Your task to perform on an android device: Open location settings Image 0: 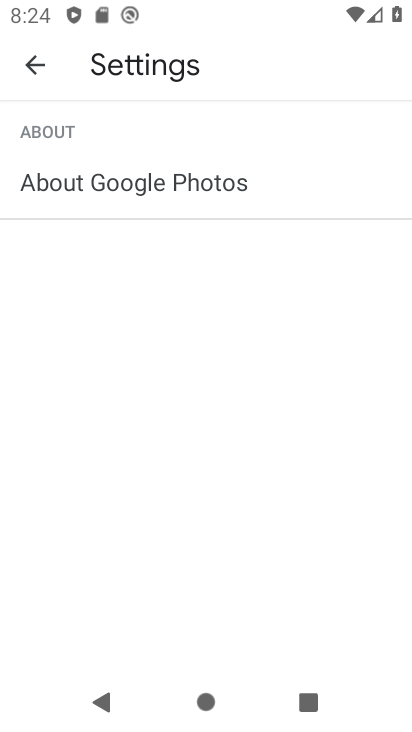
Step 0: press home button
Your task to perform on an android device: Open location settings Image 1: 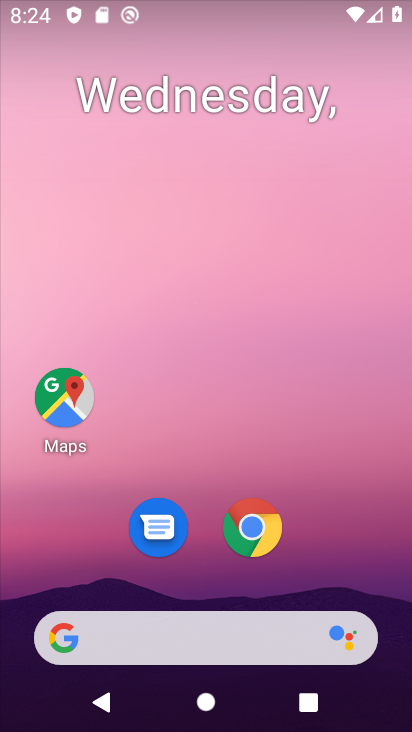
Step 1: drag from (371, 516) to (373, 20)
Your task to perform on an android device: Open location settings Image 2: 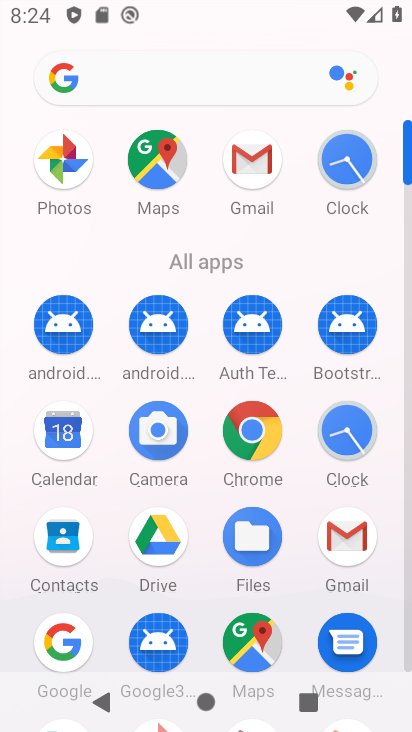
Step 2: drag from (286, 626) to (342, 156)
Your task to perform on an android device: Open location settings Image 3: 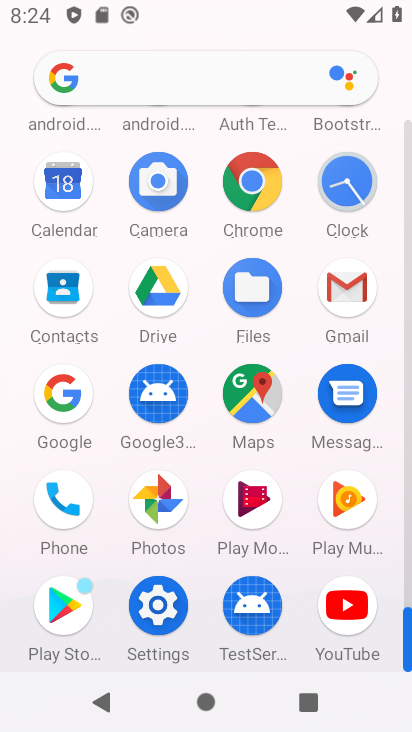
Step 3: drag from (219, 578) to (365, 189)
Your task to perform on an android device: Open location settings Image 4: 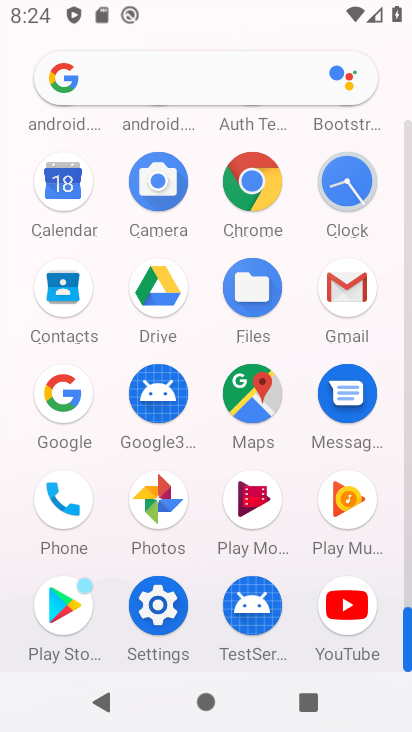
Step 4: drag from (347, 225) to (310, 622)
Your task to perform on an android device: Open location settings Image 5: 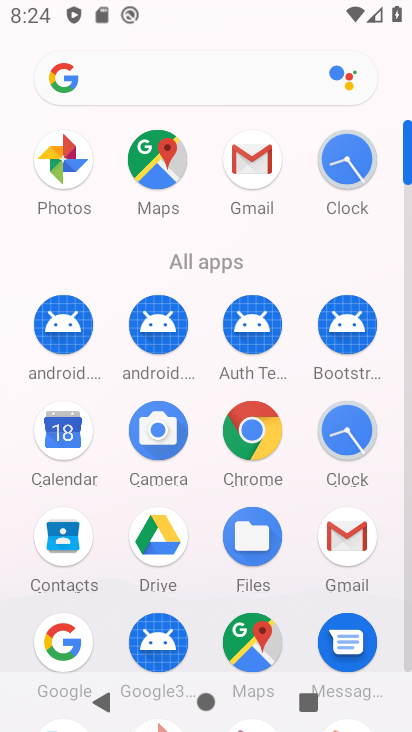
Step 5: drag from (278, 542) to (349, 80)
Your task to perform on an android device: Open location settings Image 6: 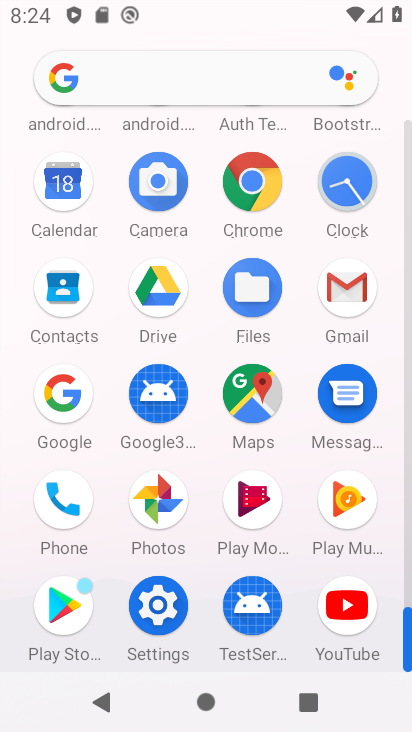
Step 6: click (153, 613)
Your task to perform on an android device: Open location settings Image 7: 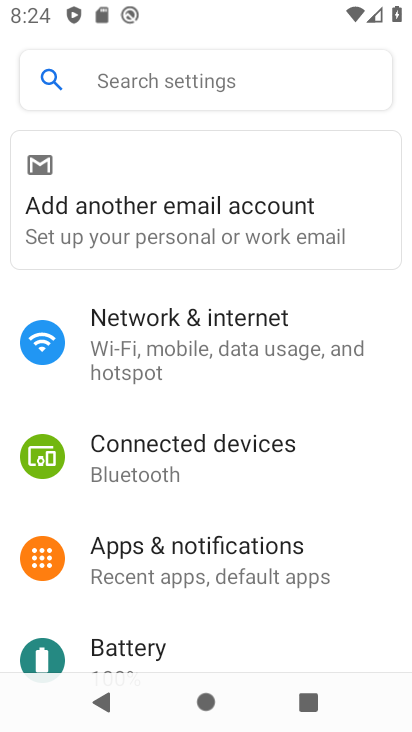
Step 7: drag from (226, 551) to (291, 224)
Your task to perform on an android device: Open location settings Image 8: 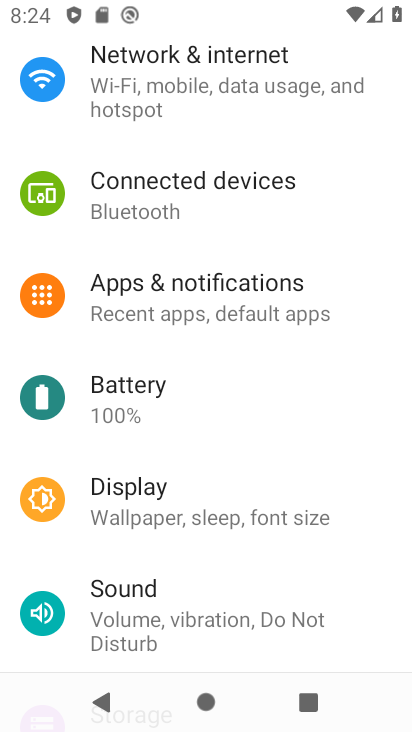
Step 8: drag from (193, 559) to (339, 245)
Your task to perform on an android device: Open location settings Image 9: 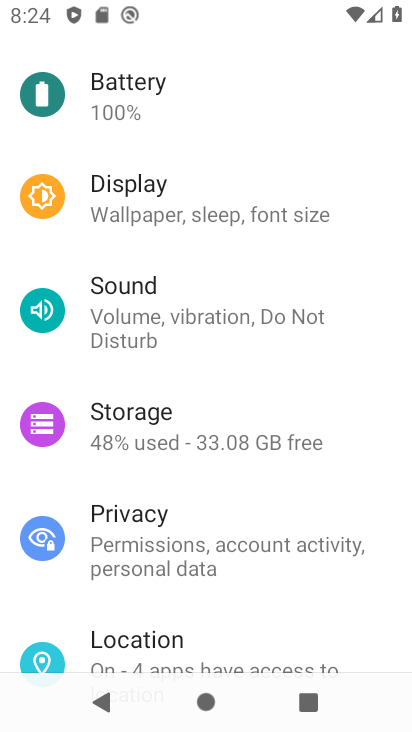
Step 9: drag from (191, 578) to (282, 283)
Your task to perform on an android device: Open location settings Image 10: 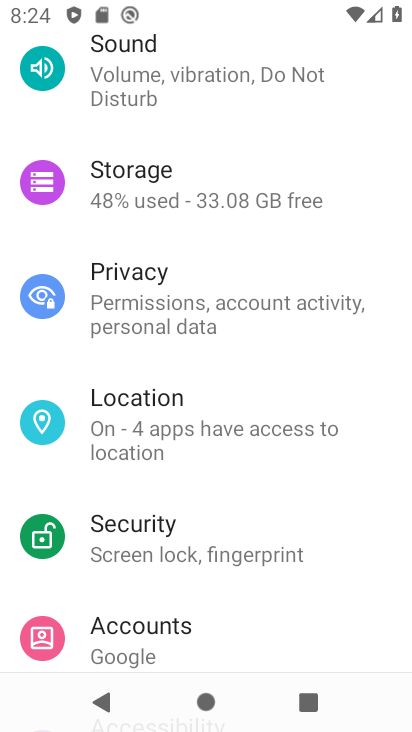
Step 10: click (183, 459)
Your task to perform on an android device: Open location settings Image 11: 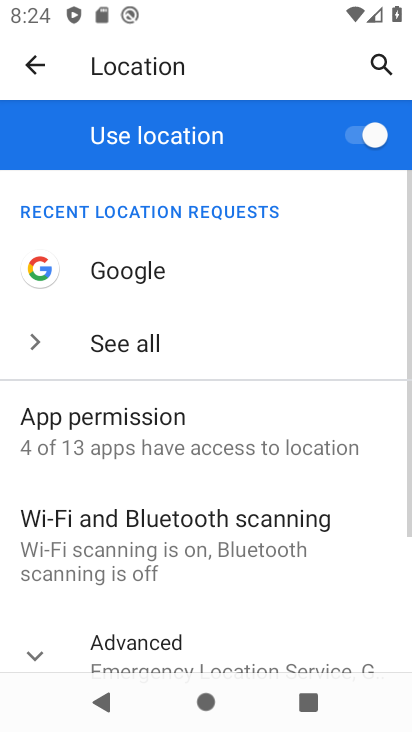
Step 11: drag from (250, 533) to (317, 163)
Your task to perform on an android device: Open location settings Image 12: 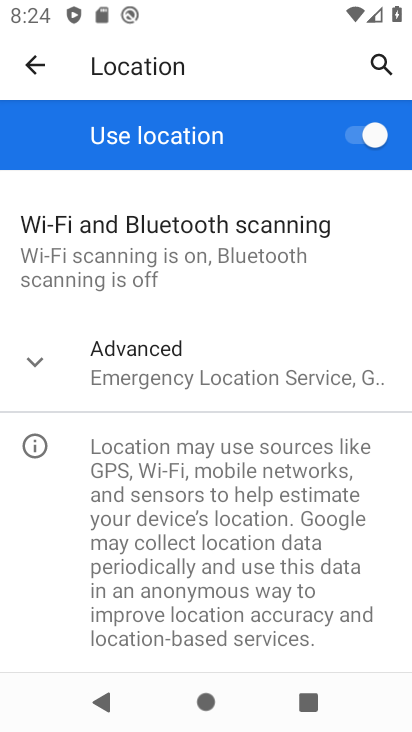
Step 12: click (219, 360)
Your task to perform on an android device: Open location settings Image 13: 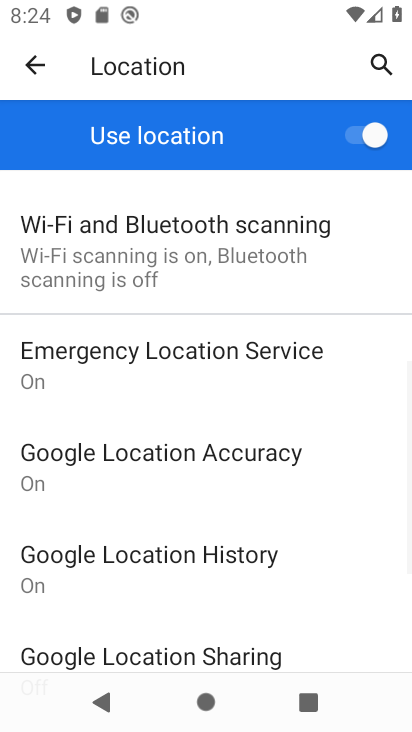
Step 13: task complete